Your task to perform on an android device: turn on wifi Image 0: 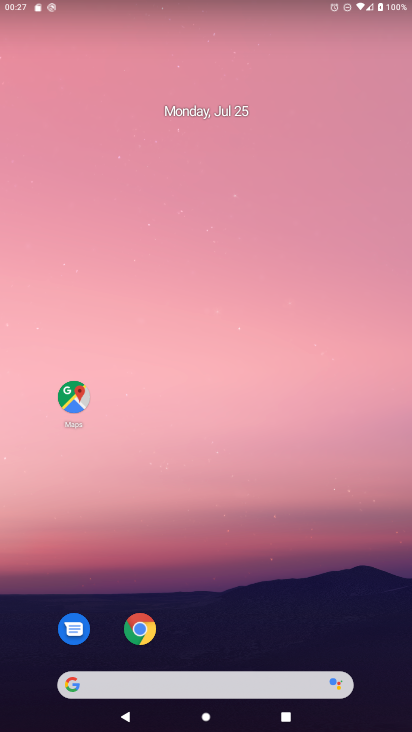
Step 0: drag from (187, 649) to (286, 174)
Your task to perform on an android device: turn on wifi Image 1: 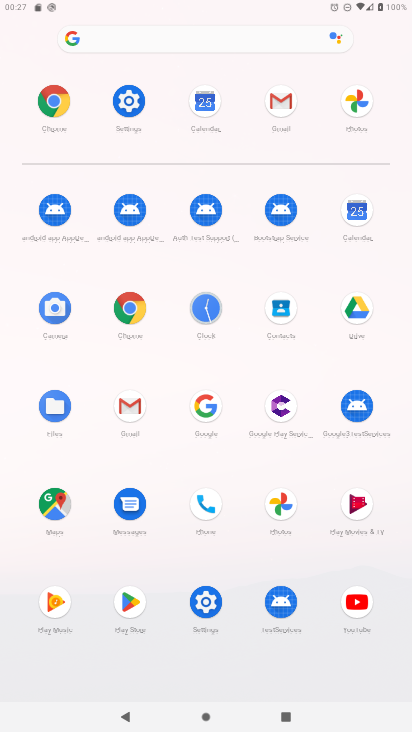
Step 1: click (192, 596)
Your task to perform on an android device: turn on wifi Image 2: 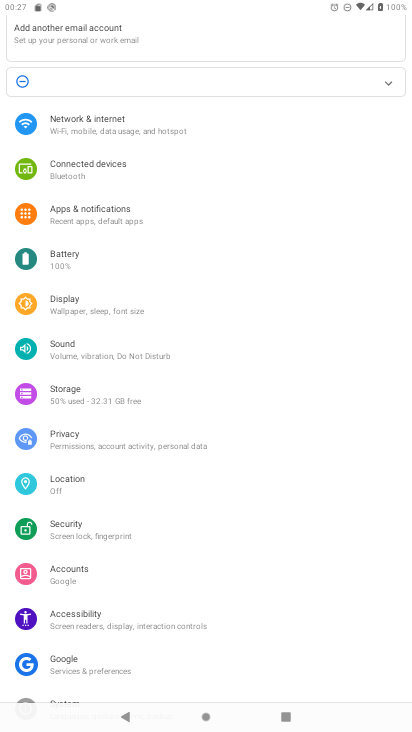
Step 2: click (125, 128)
Your task to perform on an android device: turn on wifi Image 3: 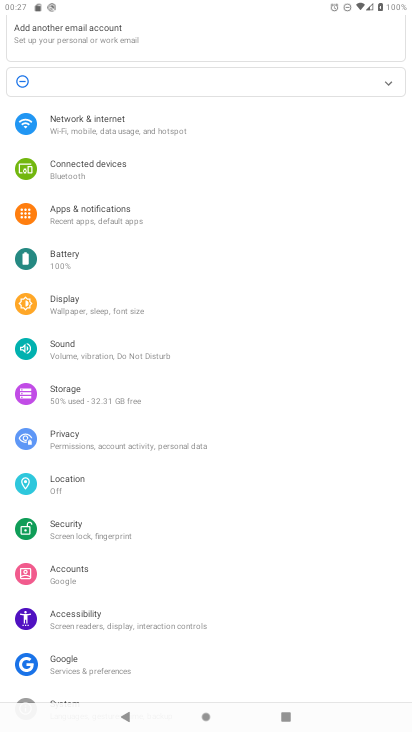
Step 3: click (125, 128)
Your task to perform on an android device: turn on wifi Image 4: 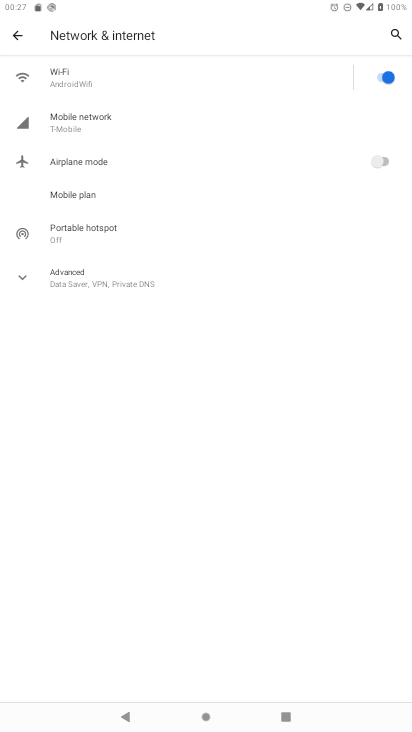
Step 4: click (89, 286)
Your task to perform on an android device: turn on wifi Image 5: 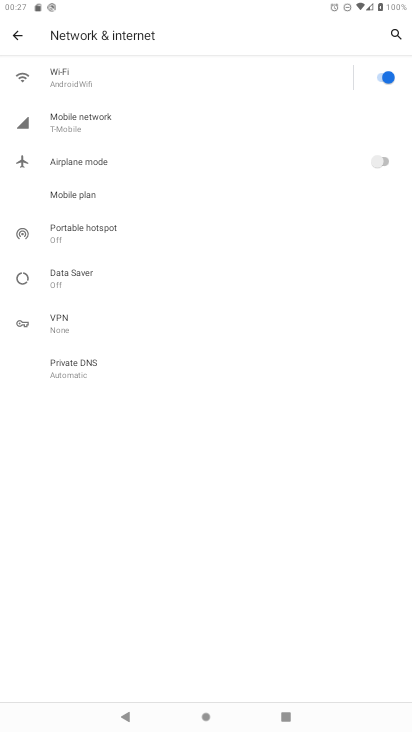
Step 5: click (106, 85)
Your task to perform on an android device: turn on wifi Image 6: 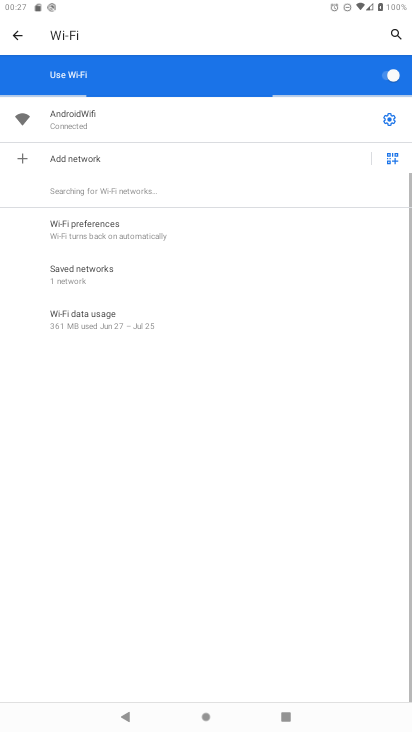
Step 6: task complete